Your task to perform on an android device: Check the weather Image 0: 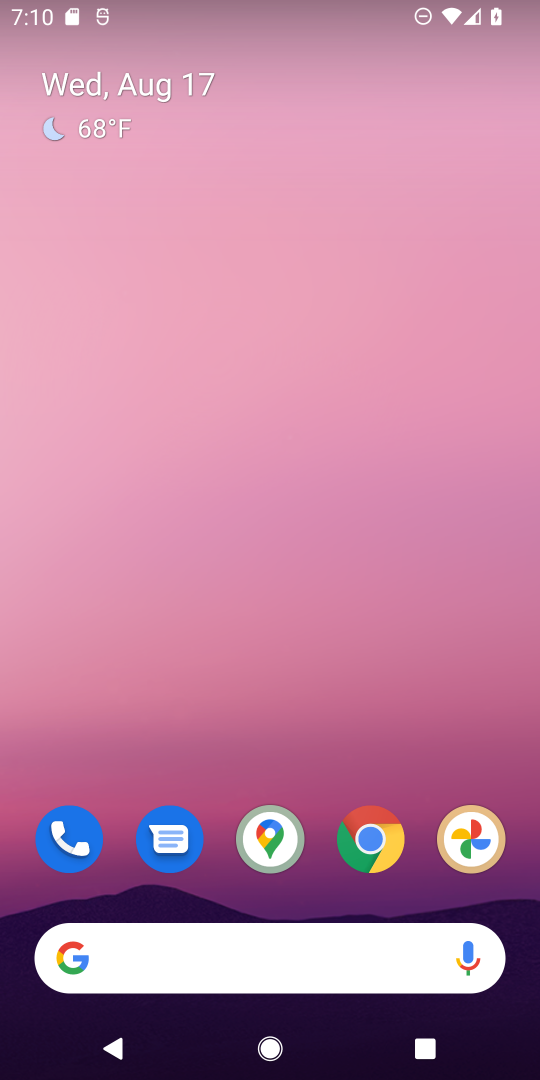
Step 0: click (199, 971)
Your task to perform on an android device: Check the weather Image 1: 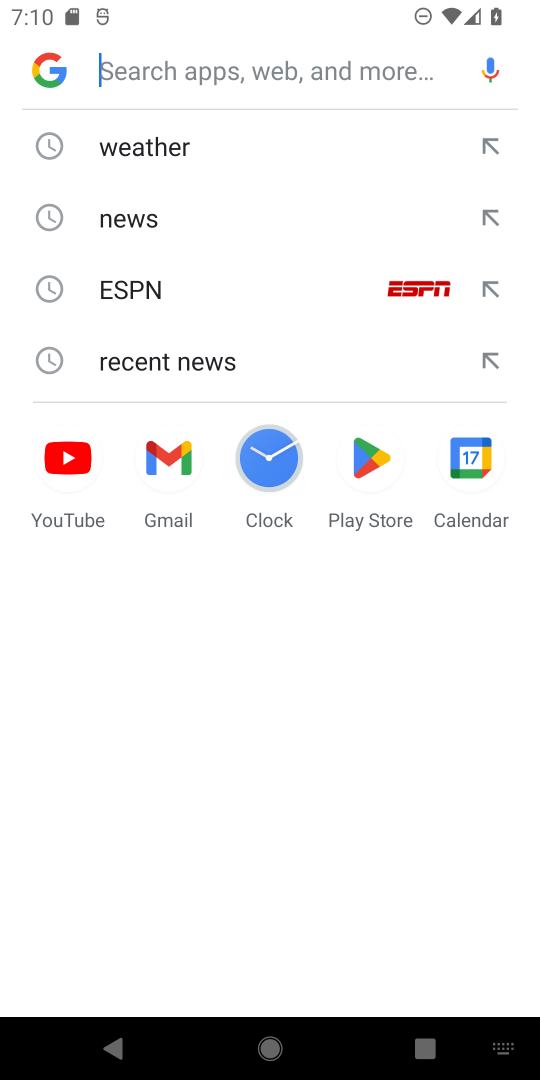
Step 1: click (72, 142)
Your task to perform on an android device: Check the weather Image 2: 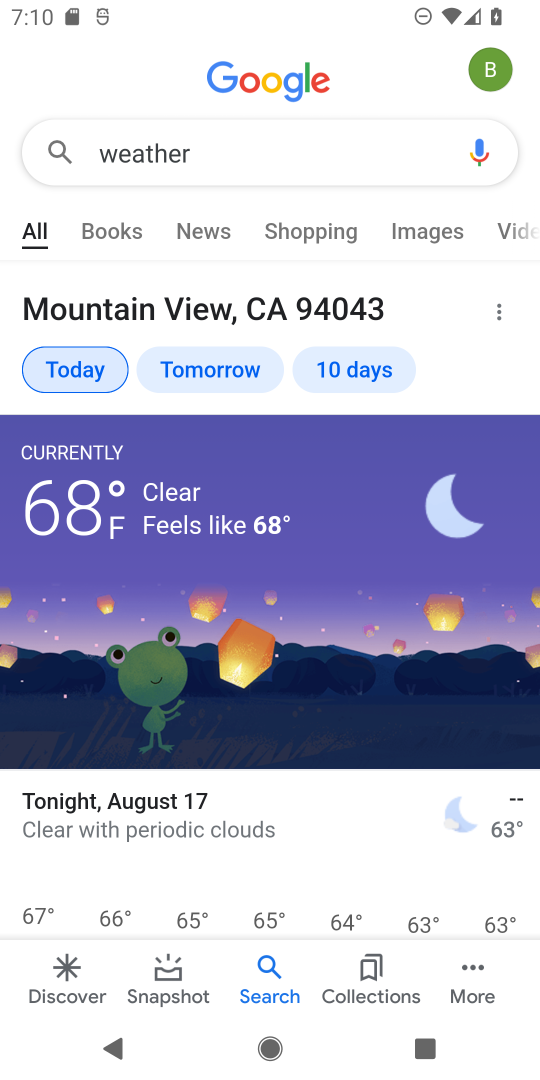
Step 2: task complete